Your task to perform on an android device: Open Google Chrome and click the shortcut for Amazon.com Image 0: 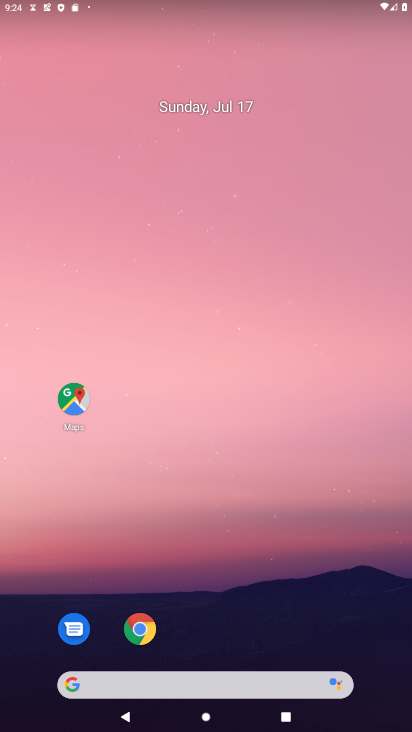
Step 0: drag from (228, 626) to (228, 94)
Your task to perform on an android device: Open Google Chrome and click the shortcut for Amazon.com Image 1: 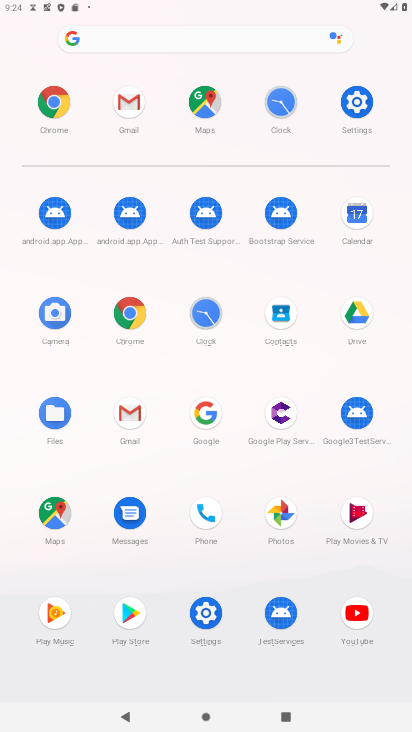
Step 1: click (130, 311)
Your task to perform on an android device: Open Google Chrome and click the shortcut for Amazon.com Image 2: 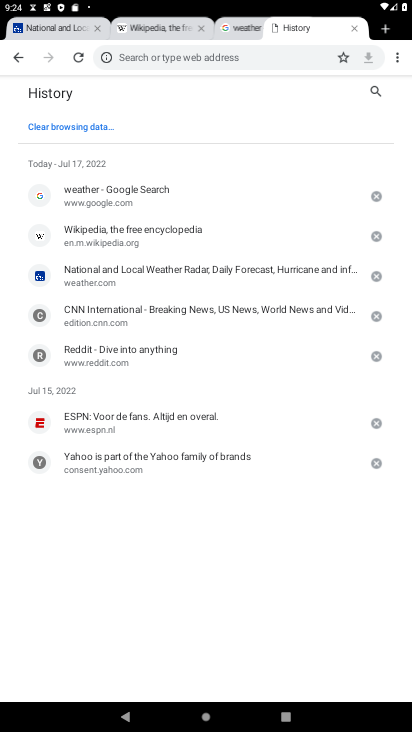
Step 2: click (393, 57)
Your task to perform on an android device: Open Google Chrome and click the shortcut for Amazon.com Image 3: 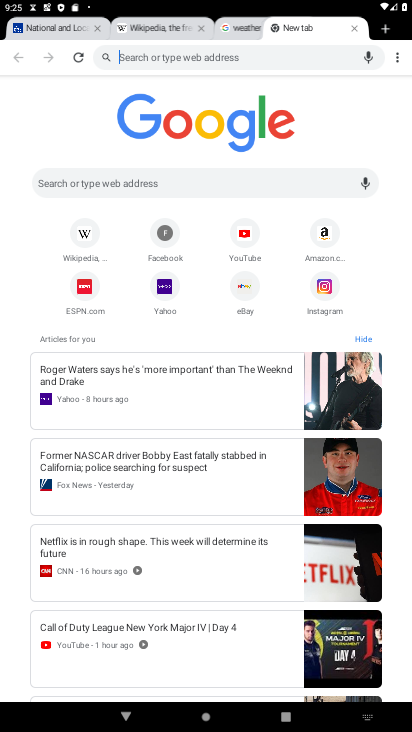
Step 3: click (324, 231)
Your task to perform on an android device: Open Google Chrome and click the shortcut for Amazon.com Image 4: 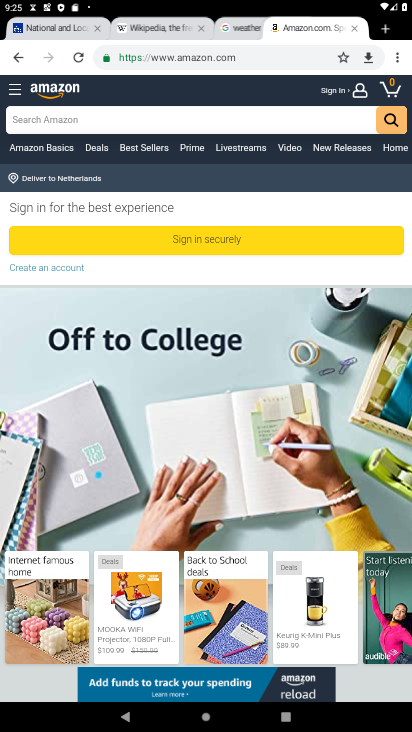
Step 4: task complete